Your task to perform on an android device: choose inbox layout in the gmail app Image 0: 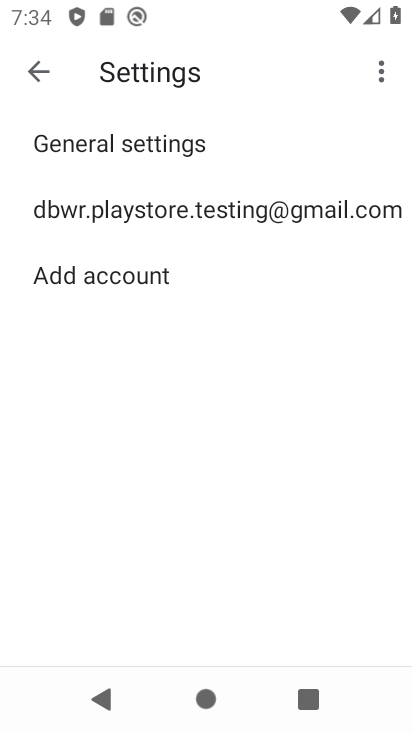
Step 0: press home button
Your task to perform on an android device: choose inbox layout in the gmail app Image 1: 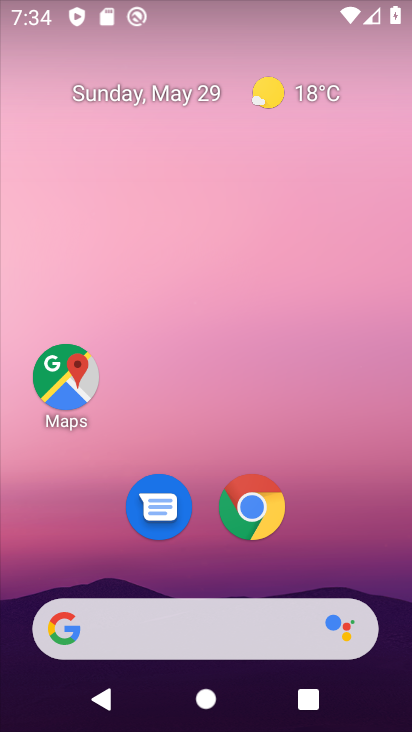
Step 1: drag from (352, 501) to (291, 160)
Your task to perform on an android device: choose inbox layout in the gmail app Image 2: 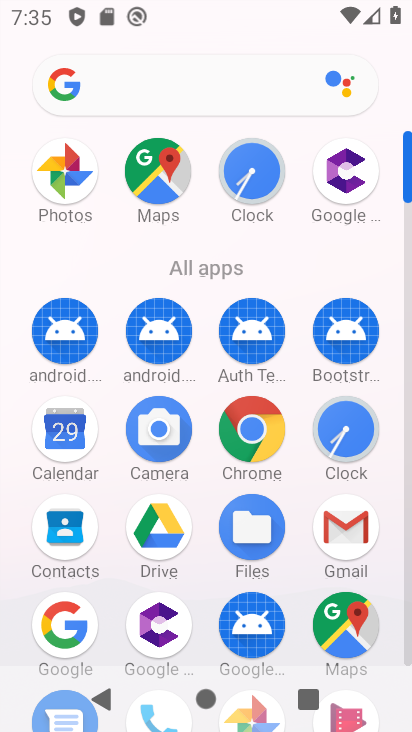
Step 2: click (330, 531)
Your task to perform on an android device: choose inbox layout in the gmail app Image 3: 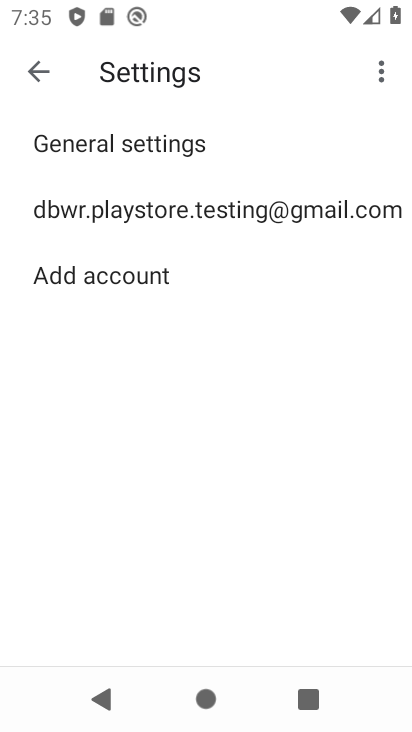
Step 3: click (180, 212)
Your task to perform on an android device: choose inbox layout in the gmail app Image 4: 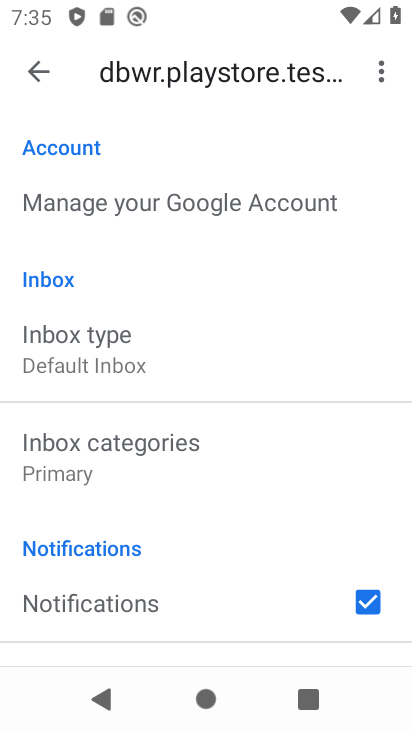
Step 4: drag from (322, 465) to (309, 158)
Your task to perform on an android device: choose inbox layout in the gmail app Image 5: 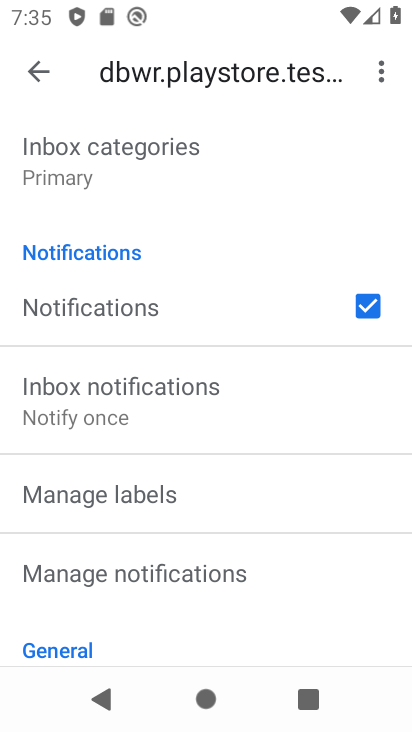
Step 5: drag from (324, 616) to (205, 674)
Your task to perform on an android device: choose inbox layout in the gmail app Image 6: 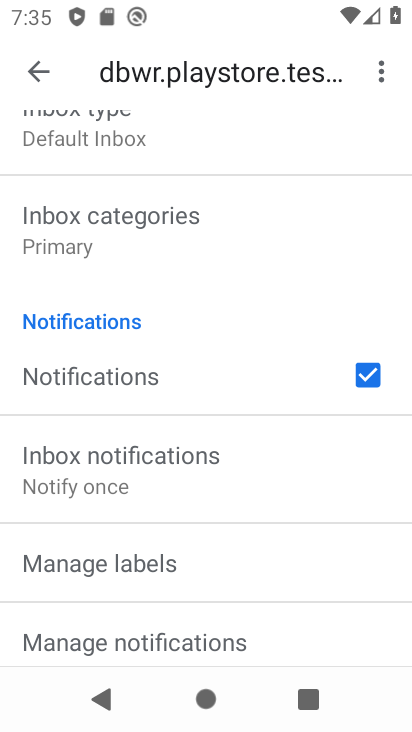
Step 6: drag from (246, 256) to (212, 616)
Your task to perform on an android device: choose inbox layout in the gmail app Image 7: 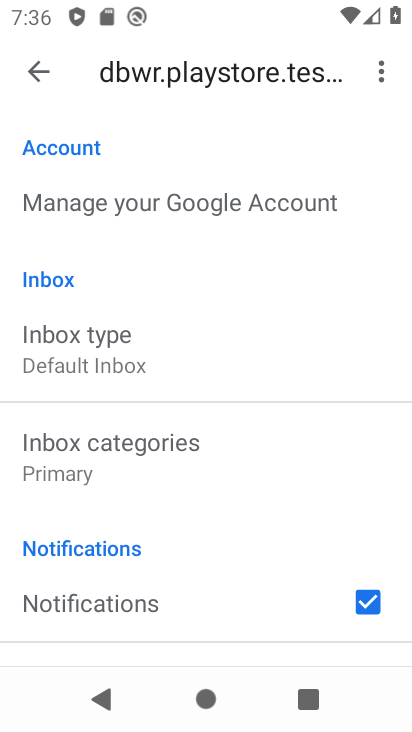
Step 7: click (155, 468)
Your task to perform on an android device: choose inbox layout in the gmail app Image 8: 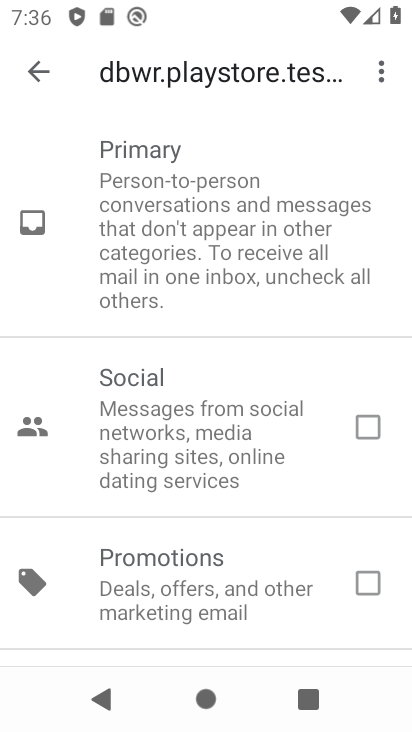
Step 8: drag from (228, 594) to (177, 157)
Your task to perform on an android device: choose inbox layout in the gmail app Image 9: 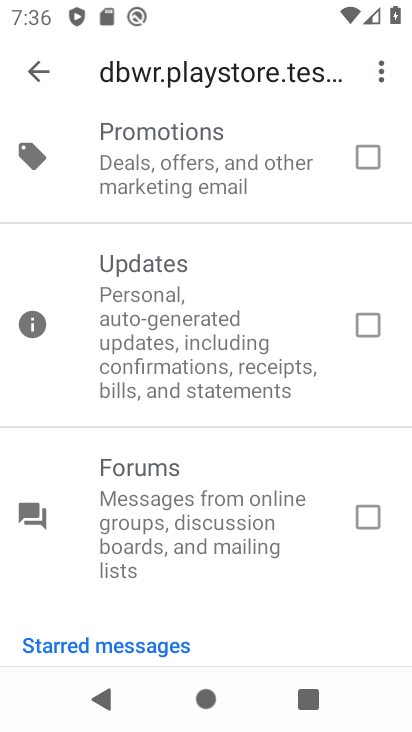
Step 9: drag from (211, 509) to (185, 138)
Your task to perform on an android device: choose inbox layout in the gmail app Image 10: 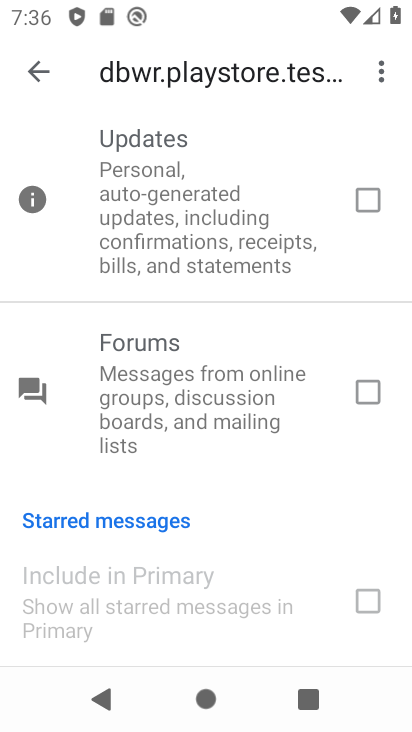
Step 10: click (28, 69)
Your task to perform on an android device: choose inbox layout in the gmail app Image 11: 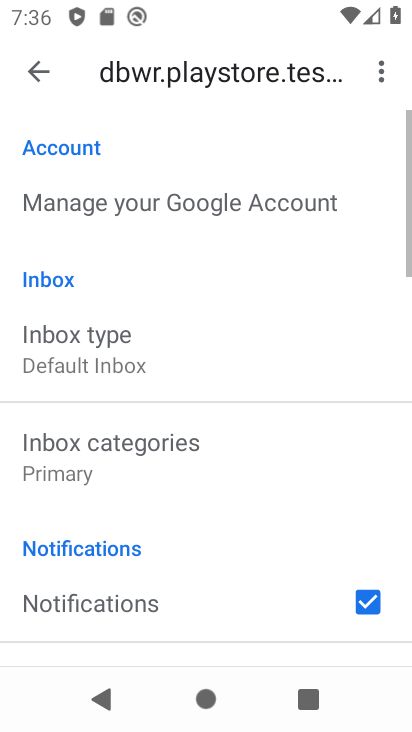
Step 11: click (156, 337)
Your task to perform on an android device: choose inbox layout in the gmail app Image 12: 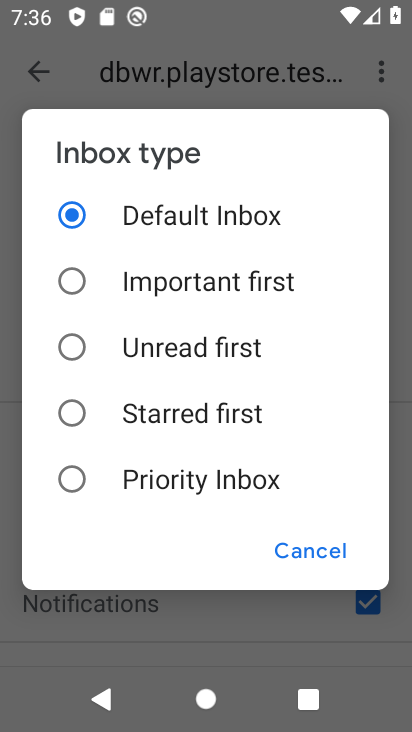
Step 12: click (220, 610)
Your task to perform on an android device: choose inbox layout in the gmail app Image 13: 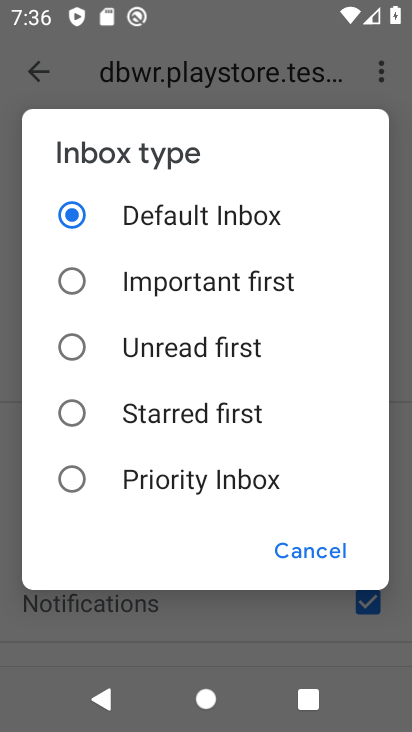
Step 13: click (311, 545)
Your task to perform on an android device: choose inbox layout in the gmail app Image 14: 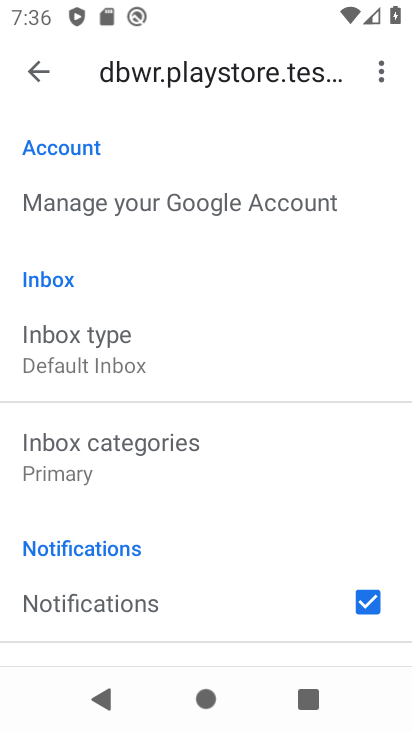
Step 14: task complete